Your task to perform on an android device: Go to eBay Image 0: 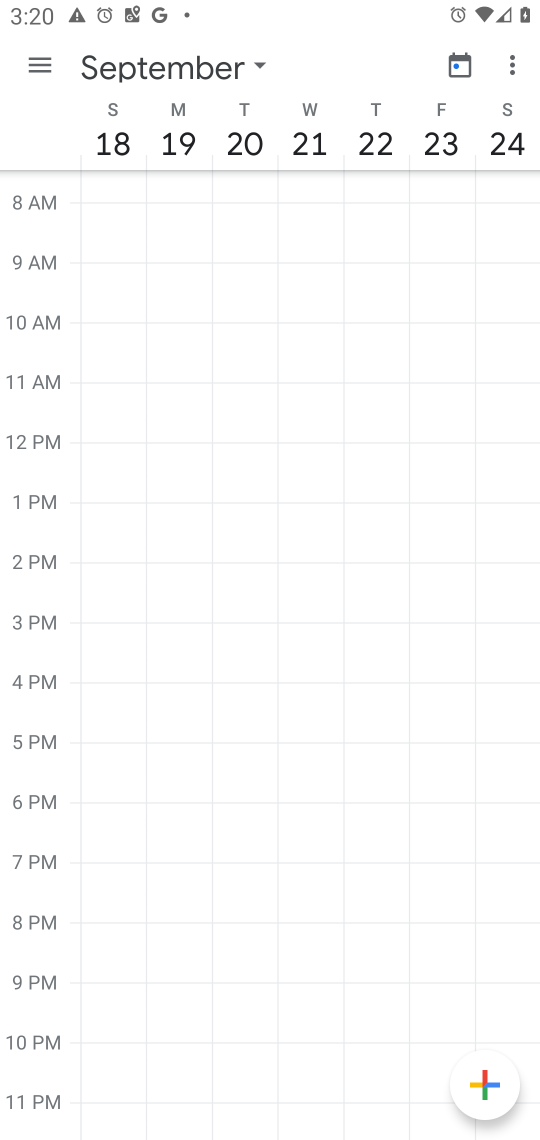
Step 0: press home button
Your task to perform on an android device: Go to eBay Image 1: 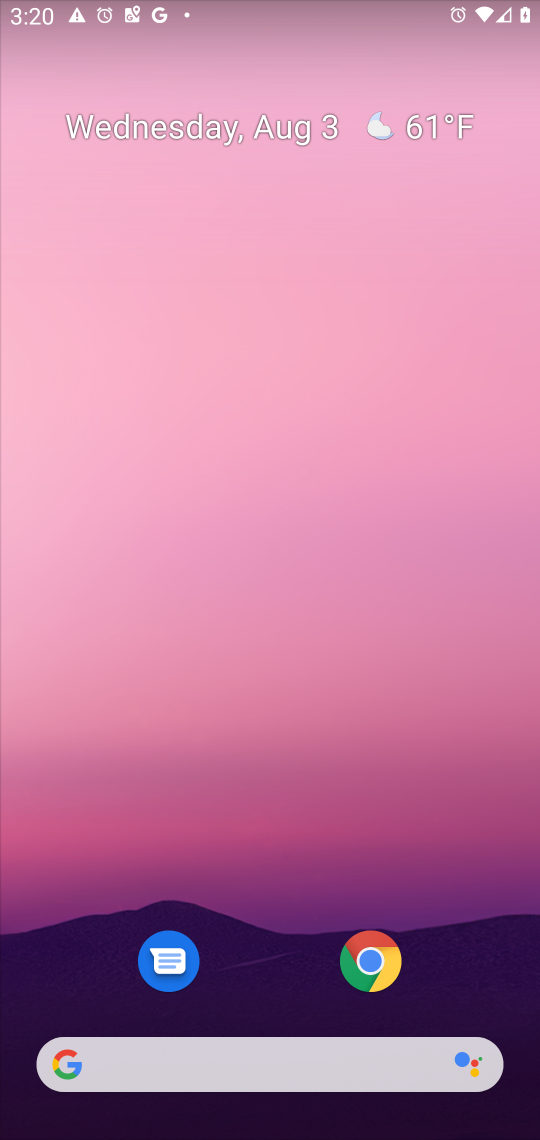
Step 1: click (377, 959)
Your task to perform on an android device: Go to eBay Image 2: 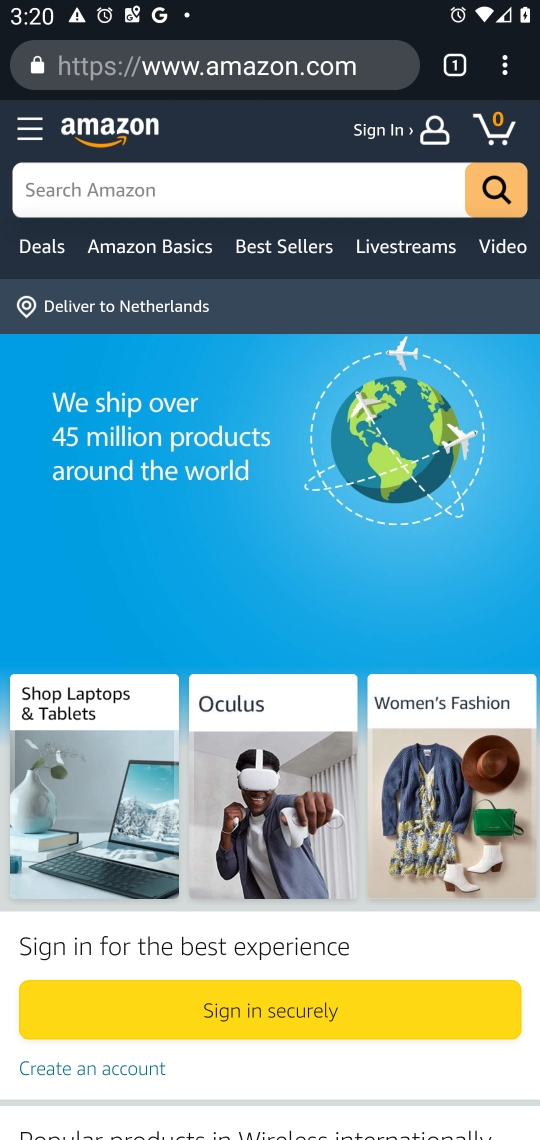
Step 2: click (224, 75)
Your task to perform on an android device: Go to eBay Image 3: 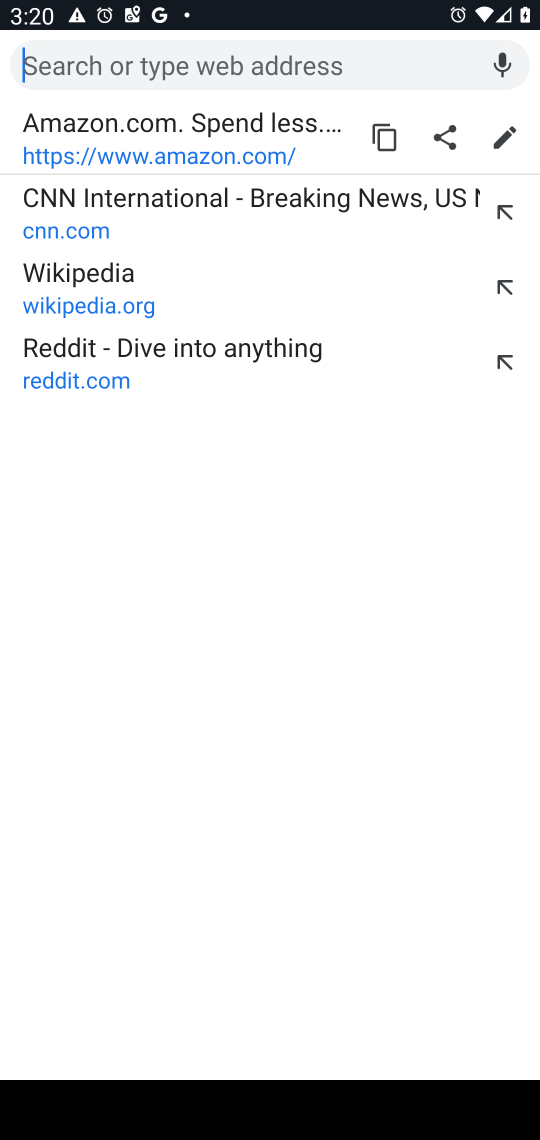
Step 3: type "ebay"
Your task to perform on an android device: Go to eBay Image 4: 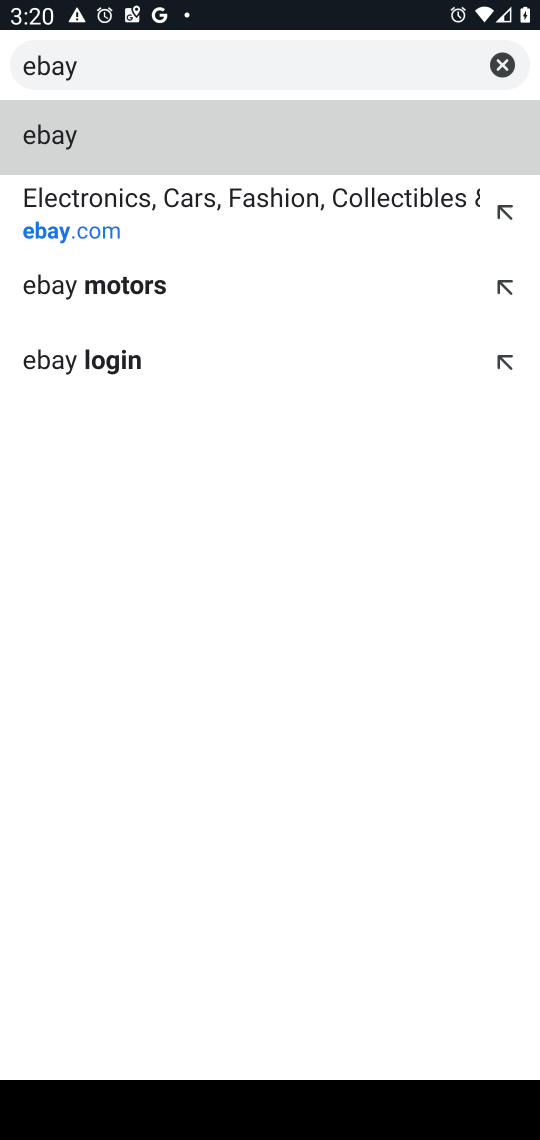
Step 4: click (32, 233)
Your task to perform on an android device: Go to eBay Image 5: 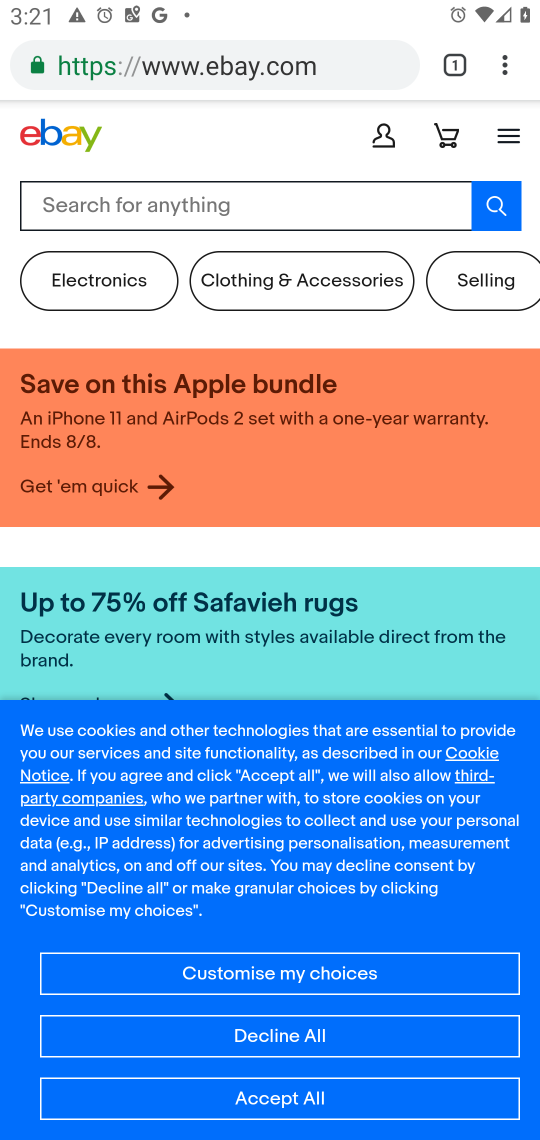
Step 5: task complete